Your task to perform on an android device: Is it going to rain today? Image 0: 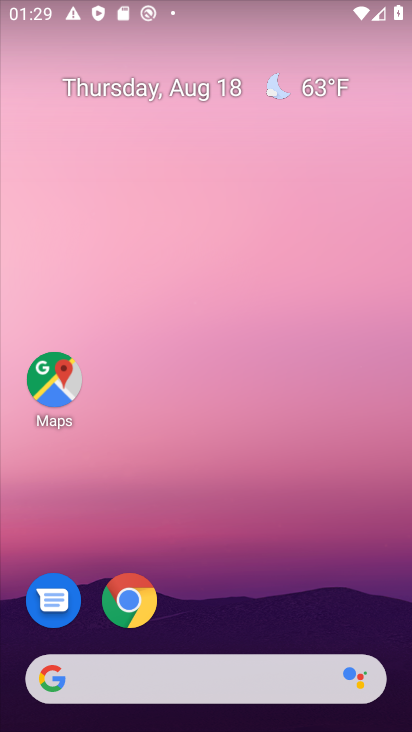
Step 0: drag from (243, 606) to (170, 195)
Your task to perform on an android device: Is it going to rain today? Image 1: 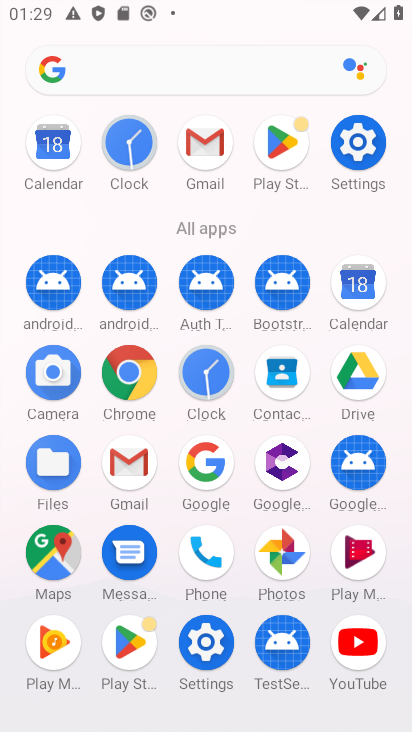
Step 1: click (204, 468)
Your task to perform on an android device: Is it going to rain today? Image 2: 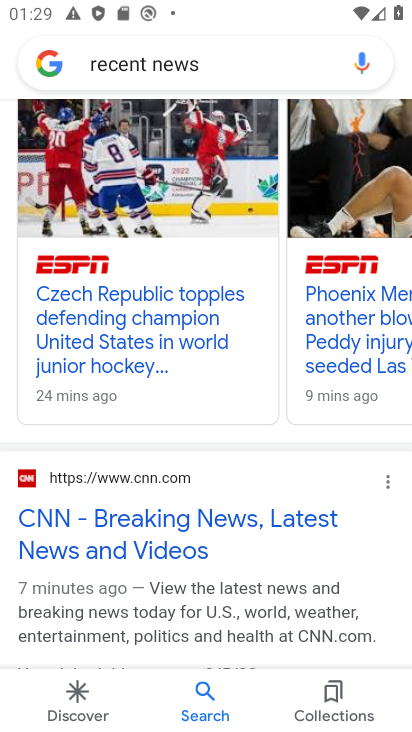
Step 2: click (245, 56)
Your task to perform on an android device: Is it going to rain today? Image 3: 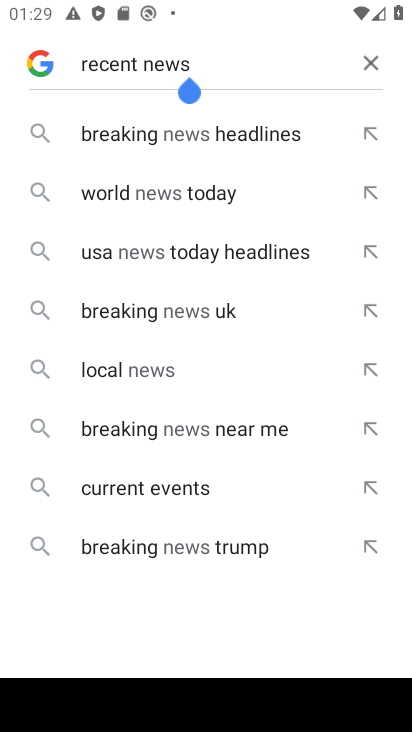
Step 3: click (372, 62)
Your task to perform on an android device: Is it going to rain today? Image 4: 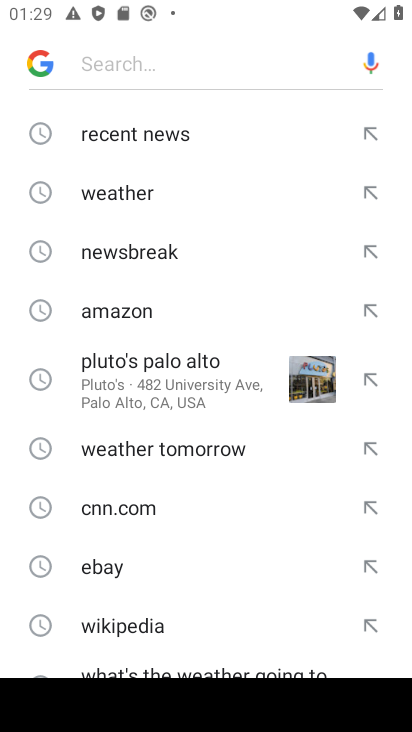
Step 4: click (129, 191)
Your task to perform on an android device: Is it going to rain today? Image 5: 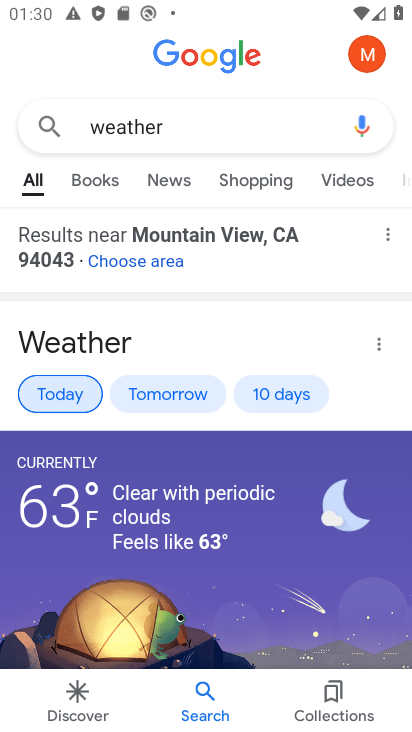
Step 5: task complete